Your task to perform on an android device: allow cookies in the chrome app Image 0: 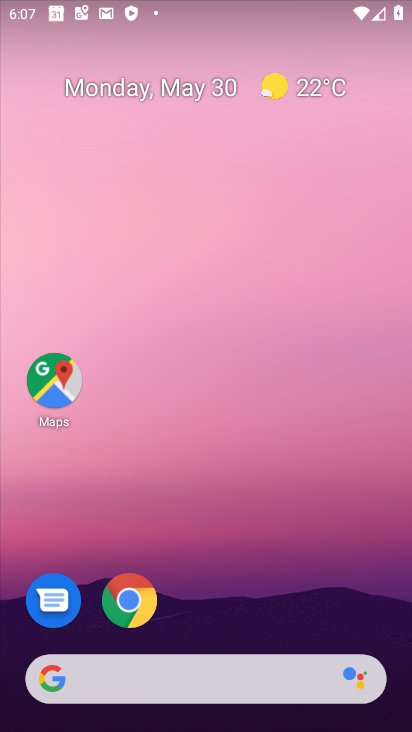
Step 0: press home button
Your task to perform on an android device: allow cookies in the chrome app Image 1: 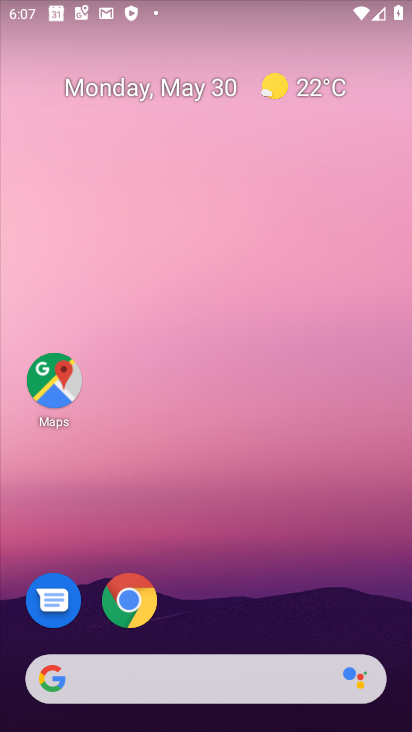
Step 1: click (131, 600)
Your task to perform on an android device: allow cookies in the chrome app Image 2: 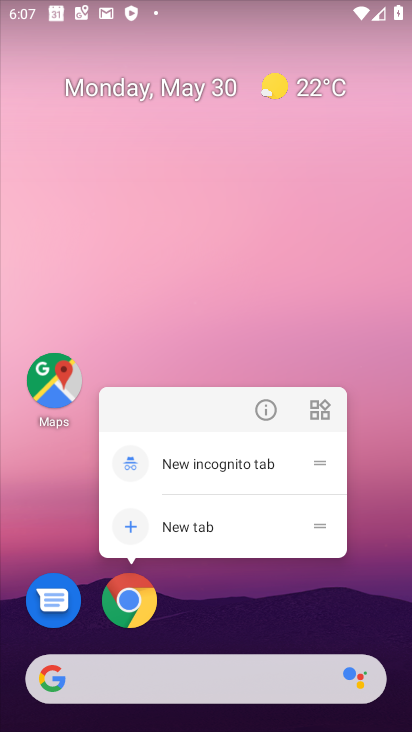
Step 2: click (131, 600)
Your task to perform on an android device: allow cookies in the chrome app Image 3: 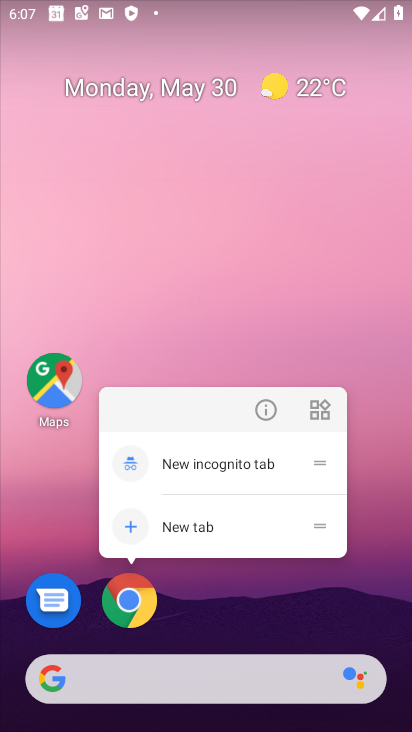
Step 3: click (131, 600)
Your task to perform on an android device: allow cookies in the chrome app Image 4: 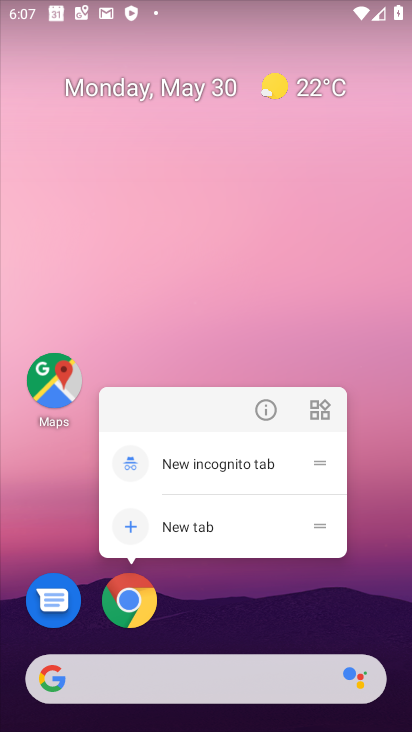
Step 4: click (303, 600)
Your task to perform on an android device: allow cookies in the chrome app Image 5: 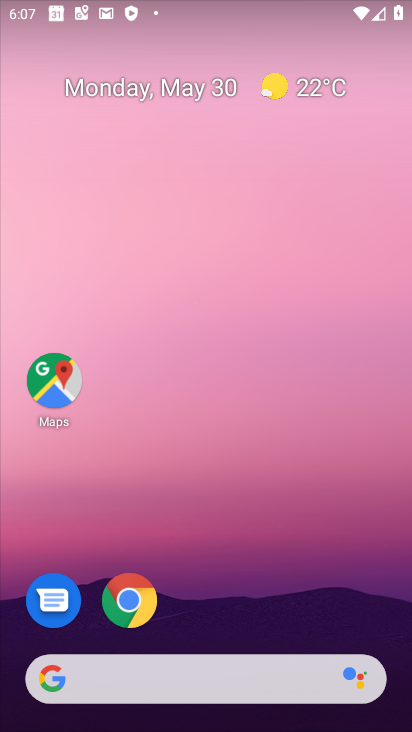
Step 5: drag from (283, 625) to (305, 272)
Your task to perform on an android device: allow cookies in the chrome app Image 6: 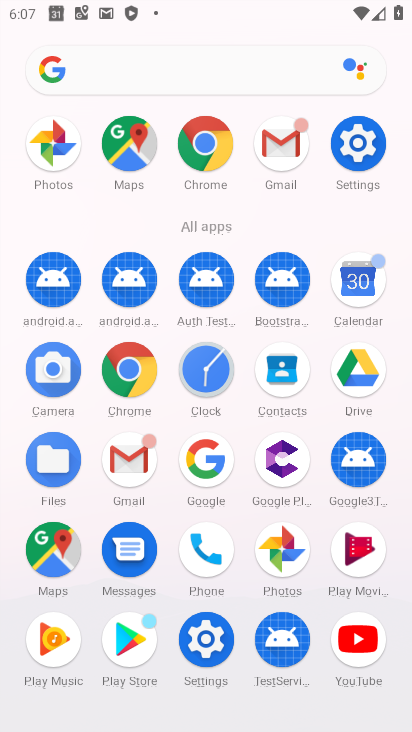
Step 6: click (227, 149)
Your task to perform on an android device: allow cookies in the chrome app Image 7: 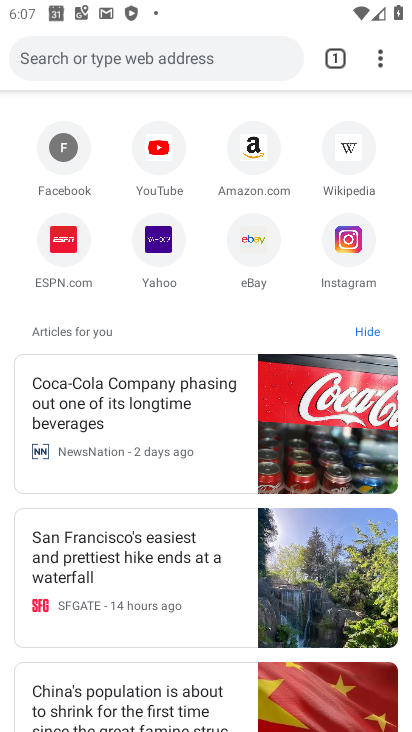
Step 7: drag from (393, 60) to (149, 493)
Your task to perform on an android device: allow cookies in the chrome app Image 8: 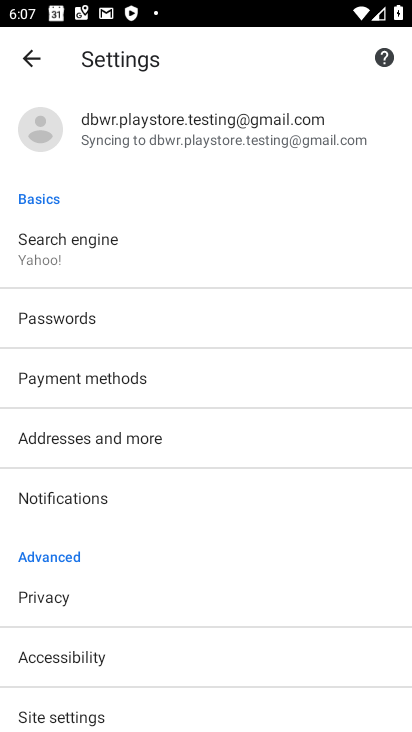
Step 8: drag from (124, 574) to (158, 310)
Your task to perform on an android device: allow cookies in the chrome app Image 9: 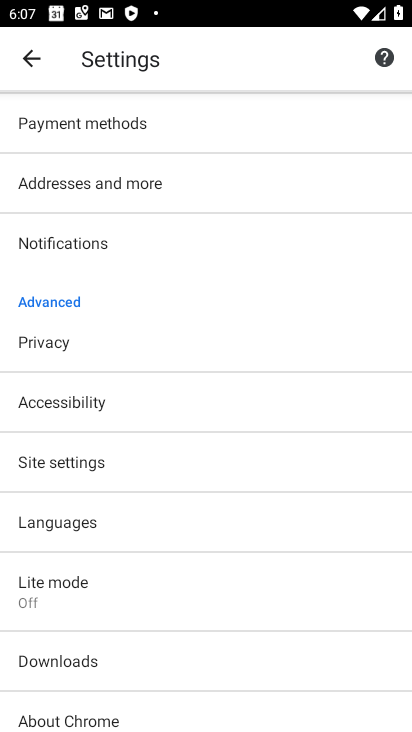
Step 9: click (62, 457)
Your task to perform on an android device: allow cookies in the chrome app Image 10: 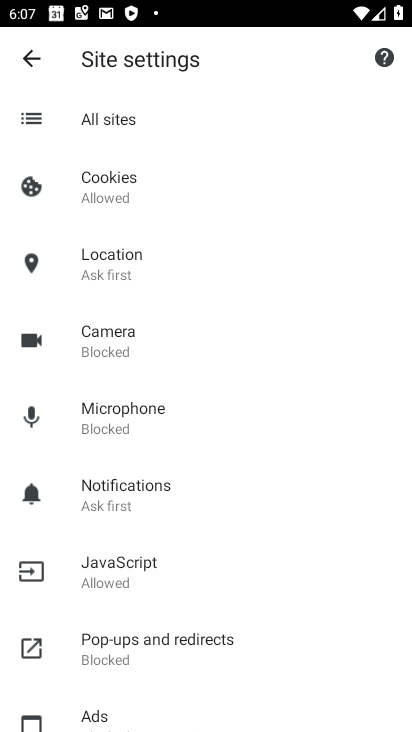
Step 10: click (111, 179)
Your task to perform on an android device: allow cookies in the chrome app Image 11: 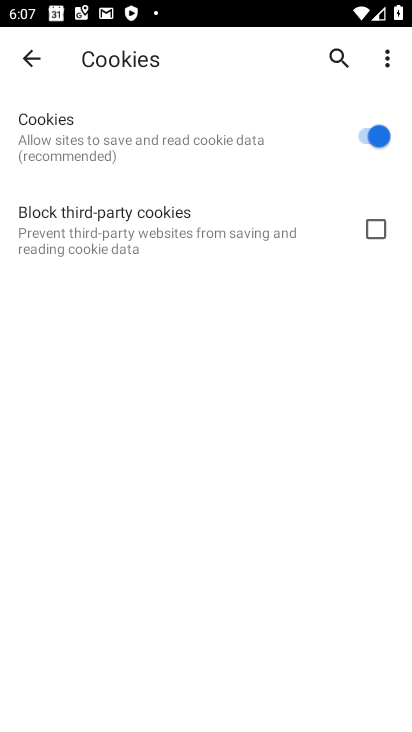
Step 11: task complete